Your task to perform on an android device: check android version Image 0: 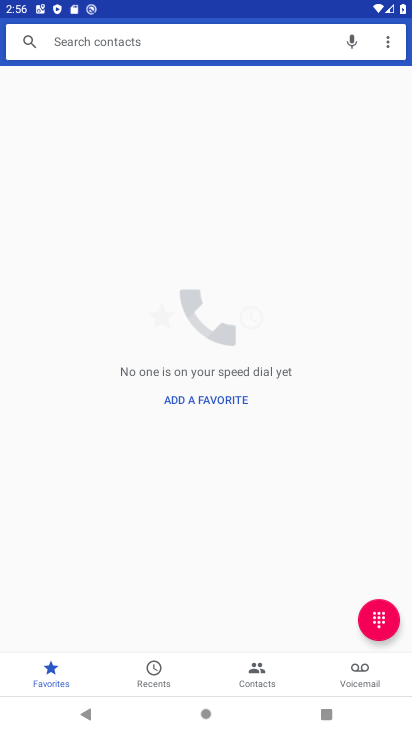
Step 0: press home button
Your task to perform on an android device: check android version Image 1: 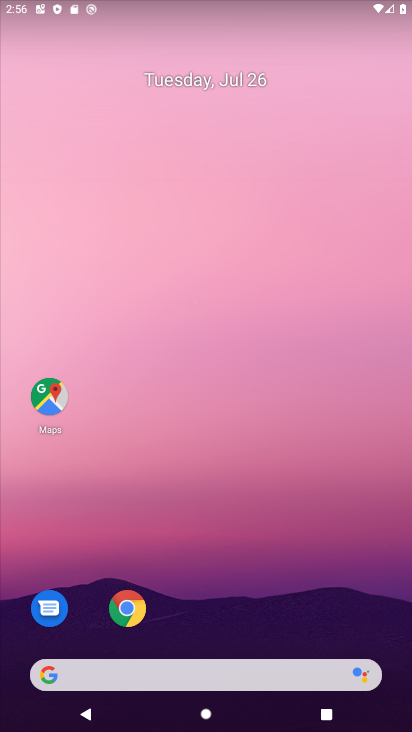
Step 1: drag from (242, 605) to (253, 290)
Your task to perform on an android device: check android version Image 2: 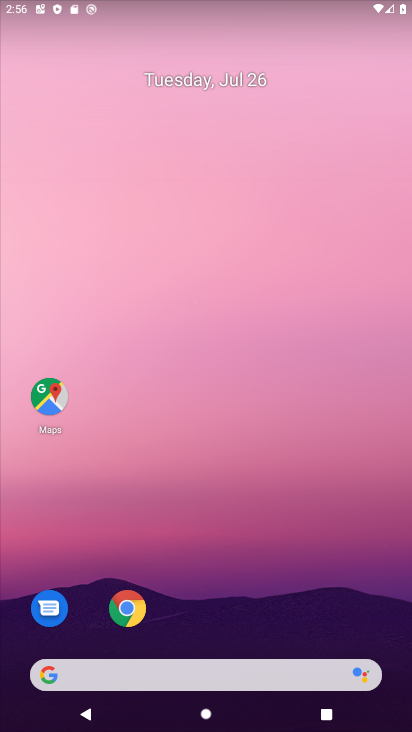
Step 2: drag from (257, 585) to (278, 276)
Your task to perform on an android device: check android version Image 3: 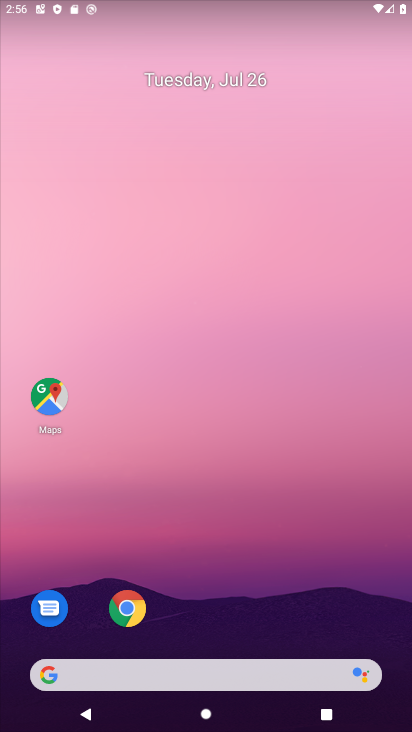
Step 3: drag from (230, 632) to (268, 366)
Your task to perform on an android device: check android version Image 4: 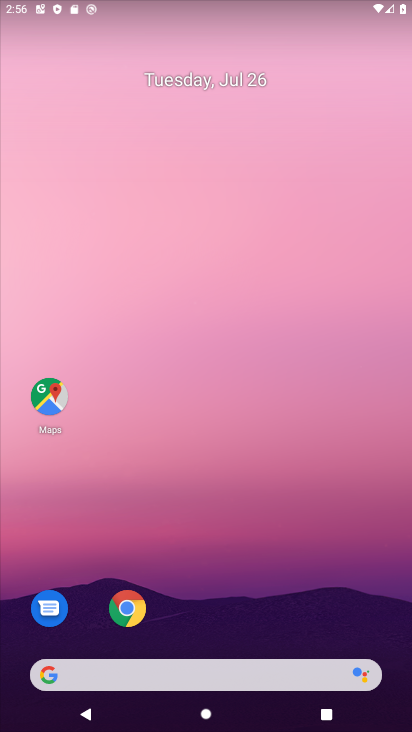
Step 4: drag from (255, 502) to (273, 0)
Your task to perform on an android device: check android version Image 5: 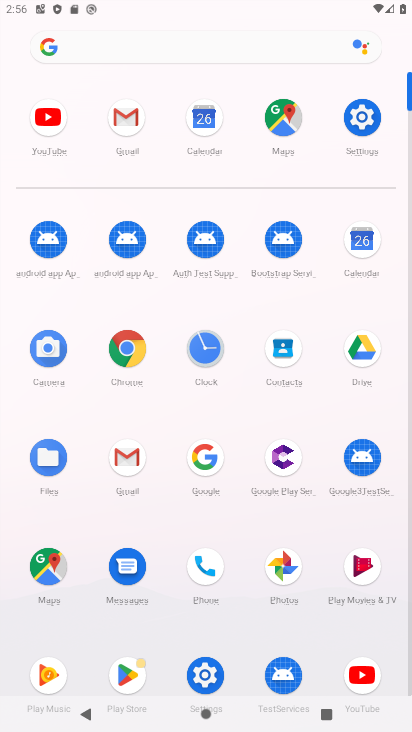
Step 5: click (356, 121)
Your task to perform on an android device: check android version Image 6: 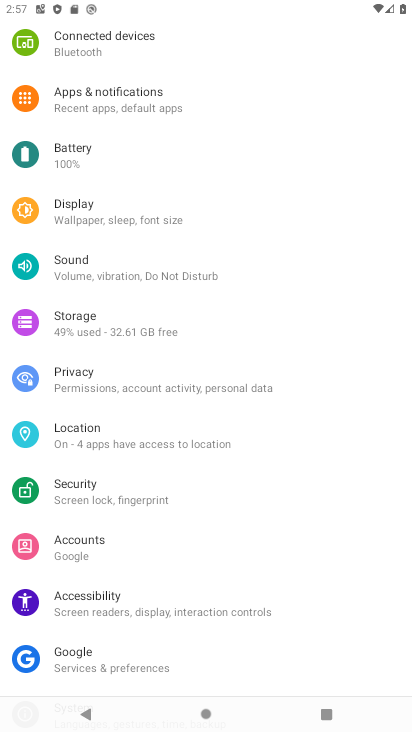
Step 6: drag from (248, 600) to (306, 238)
Your task to perform on an android device: check android version Image 7: 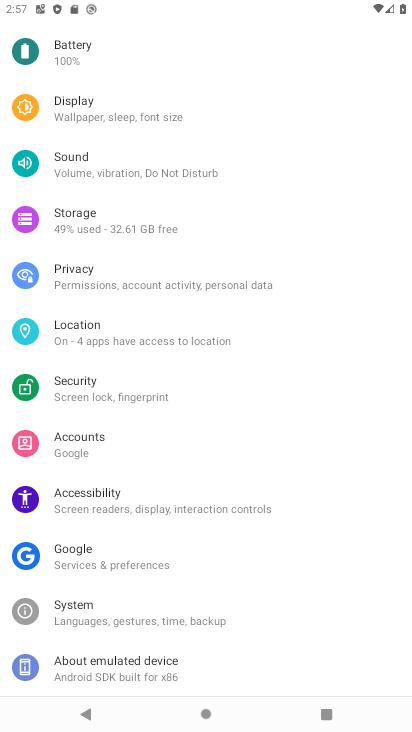
Step 7: click (157, 656)
Your task to perform on an android device: check android version Image 8: 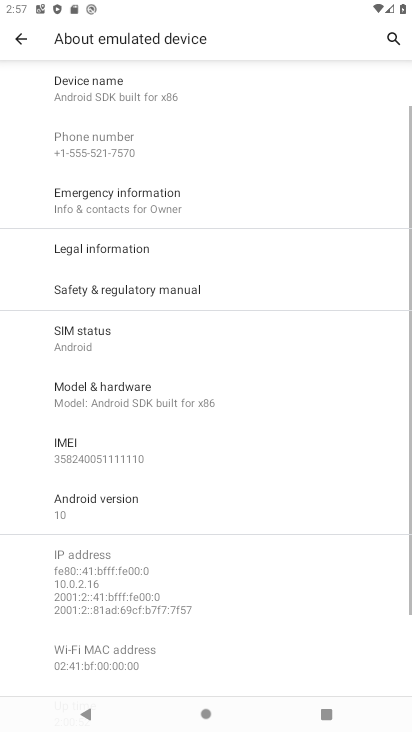
Step 8: task complete